Your task to perform on an android device: Go to sound settings Image 0: 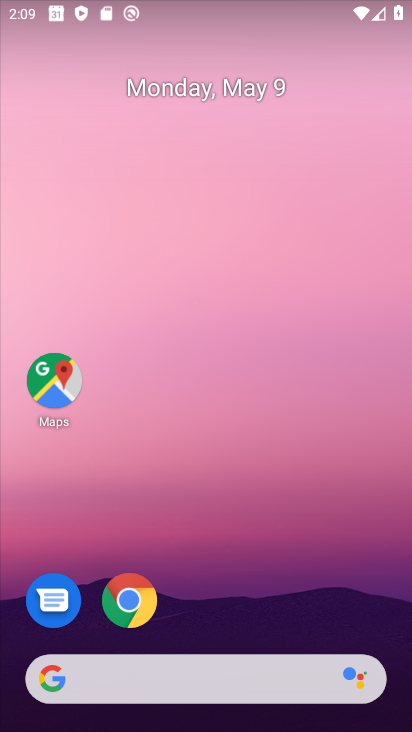
Step 0: drag from (233, 502) to (214, 0)
Your task to perform on an android device: Go to sound settings Image 1: 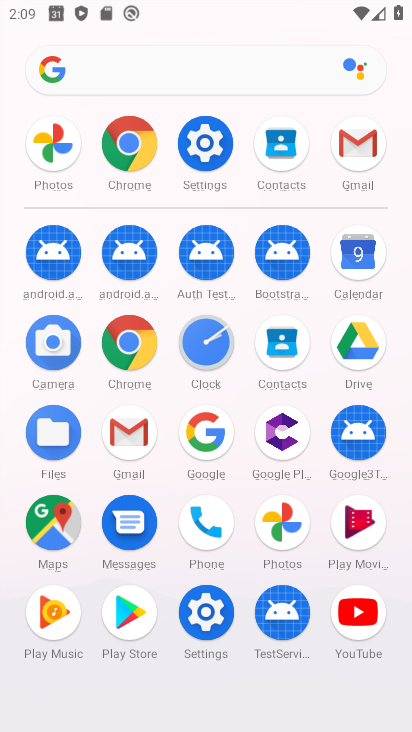
Step 1: click (205, 608)
Your task to perform on an android device: Go to sound settings Image 2: 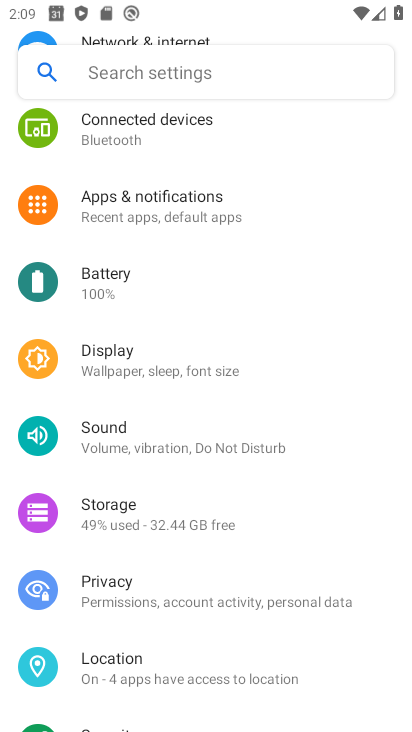
Step 2: click (178, 451)
Your task to perform on an android device: Go to sound settings Image 3: 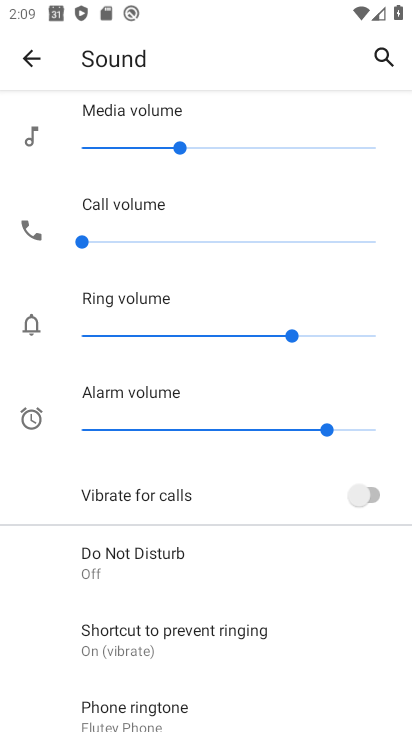
Step 3: drag from (206, 621) to (217, 159)
Your task to perform on an android device: Go to sound settings Image 4: 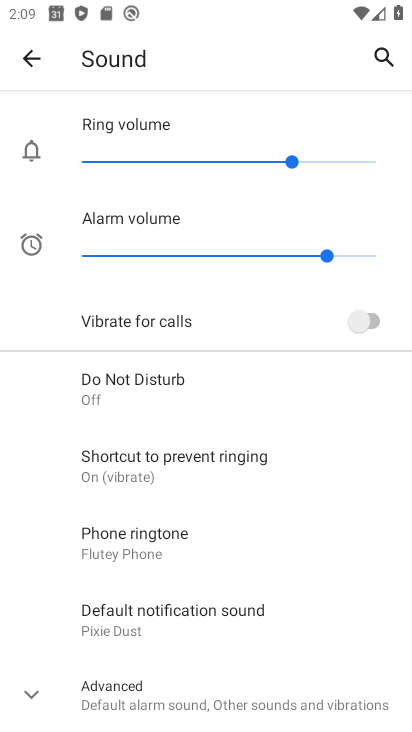
Step 4: click (22, 699)
Your task to perform on an android device: Go to sound settings Image 5: 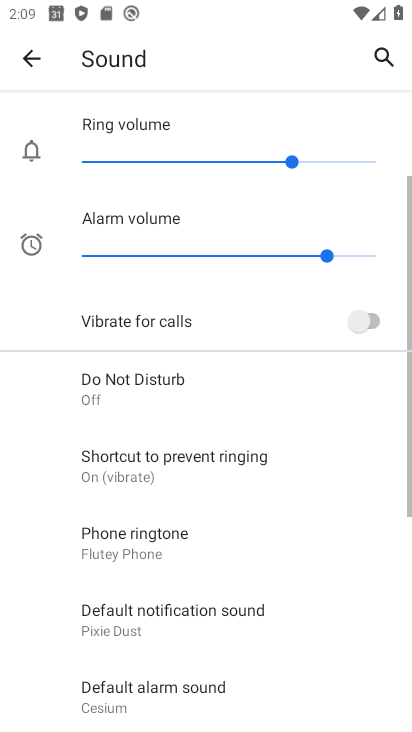
Step 5: task complete